Your task to perform on an android device: turn off location history Image 0: 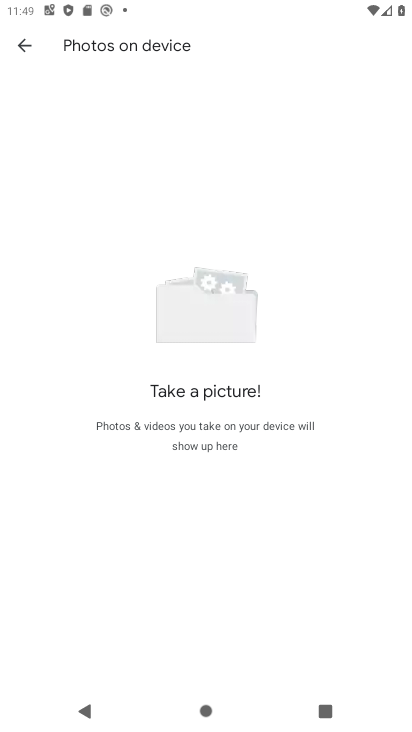
Step 0: press home button
Your task to perform on an android device: turn off location history Image 1: 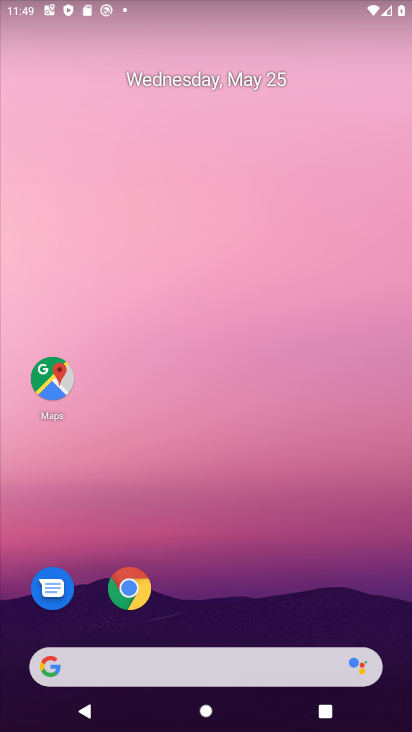
Step 1: drag from (259, 502) to (248, 51)
Your task to perform on an android device: turn off location history Image 2: 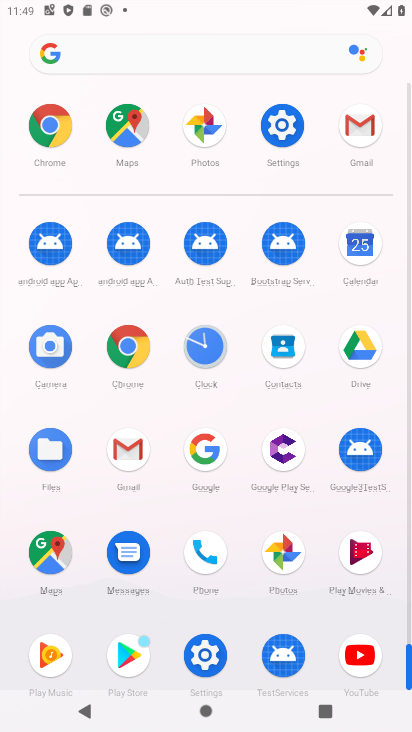
Step 2: drag from (8, 569) to (37, 185)
Your task to perform on an android device: turn off location history Image 3: 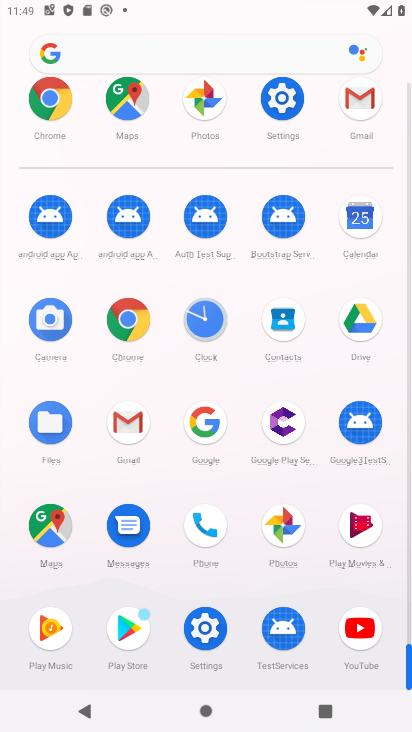
Step 3: click (203, 624)
Your task to perform on an android device: turn off location history Image 4: 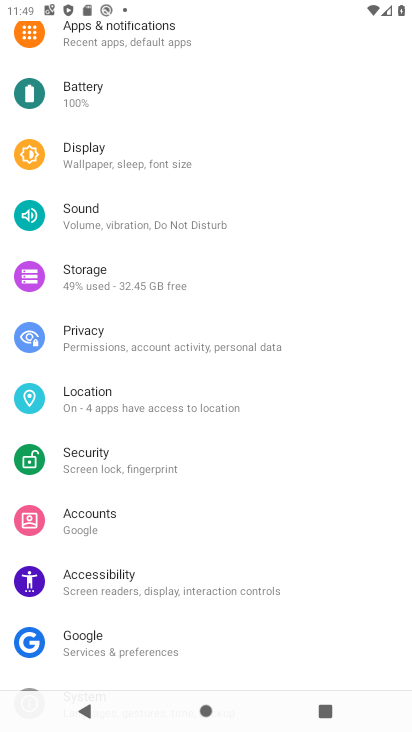
Step 4: click (108, 394)
Your task to perform on an android device: turn off location history Image 5: 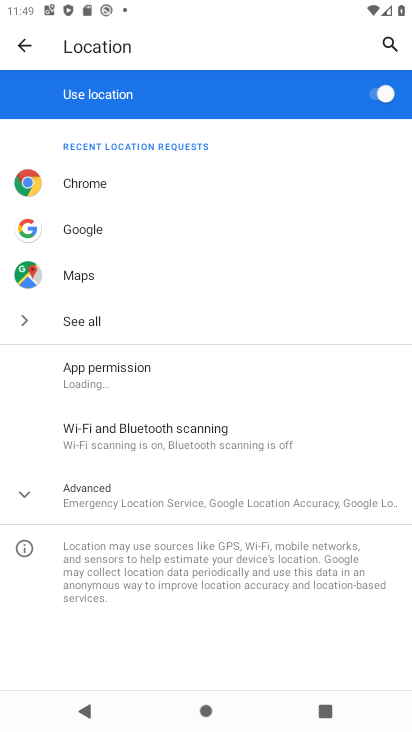
Step 5: click (78, 490)
Your task to perform on an android device: turn off location history Image 6: 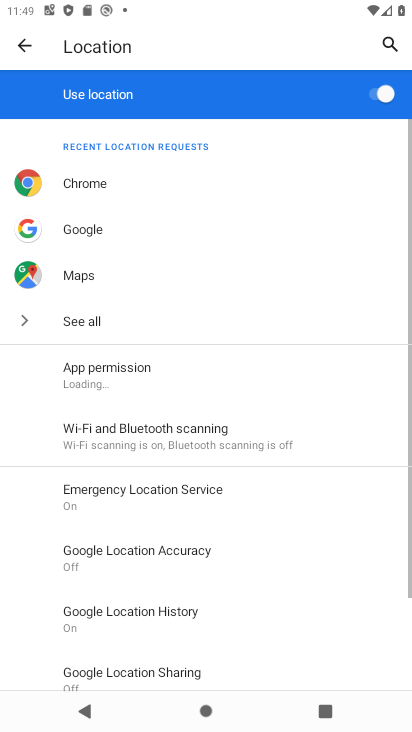
Step 6: drag from (260, 624) to (304, 287)
Your task to perform on an android device: turn off location history Image 7: 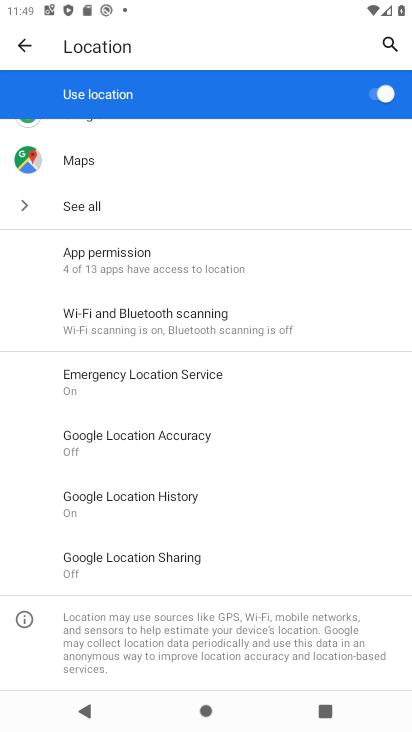
Step 7: click (145, 500)
Your task to perform on an android device: turn off location history Image 8: 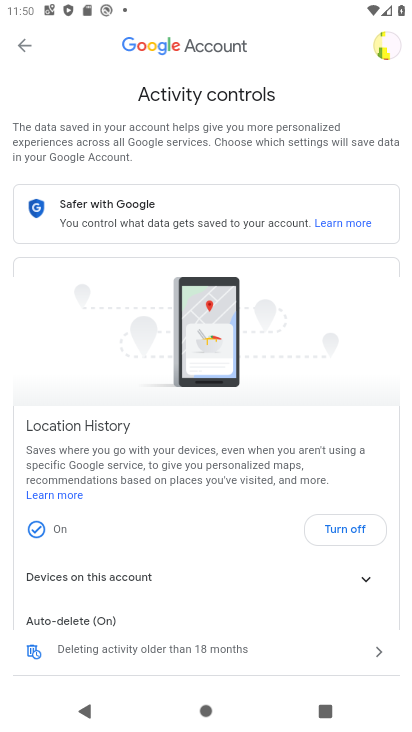
Step 8: click (334, 527)
Your task to perform on an android device: turn off location history Image 9: 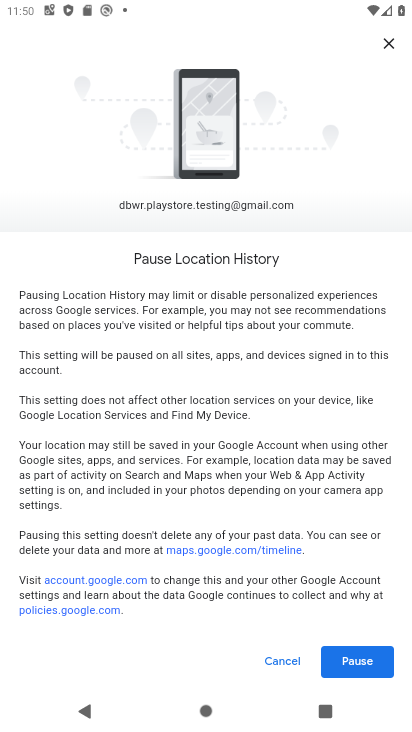
Step 9: drag from (243, 529) to (247, 135)
Your task to perform on an android device: turn off location history Image 10: 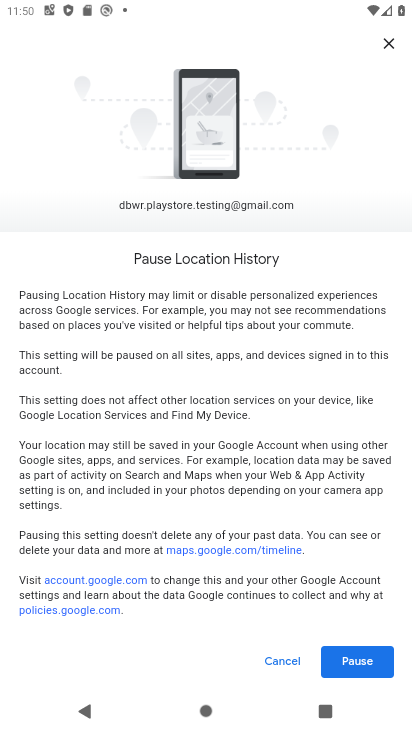
Step 10: click (341, 672)
Your task to perform on an android device: turn off location history Image 11: 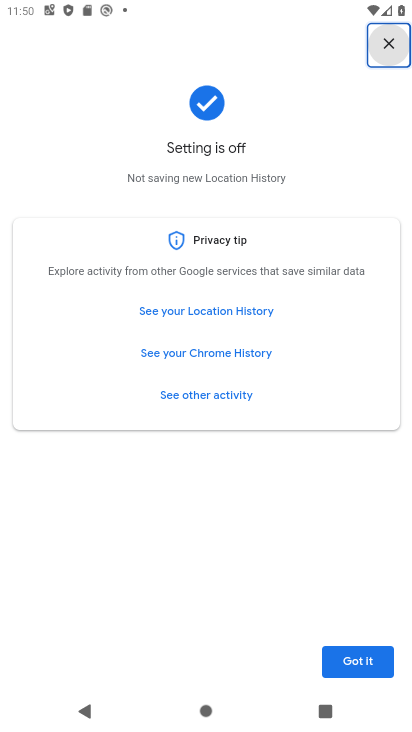
Step 11: task complete